Your task to perform on an android device: stop showing notifications on the lock screen Image 0: 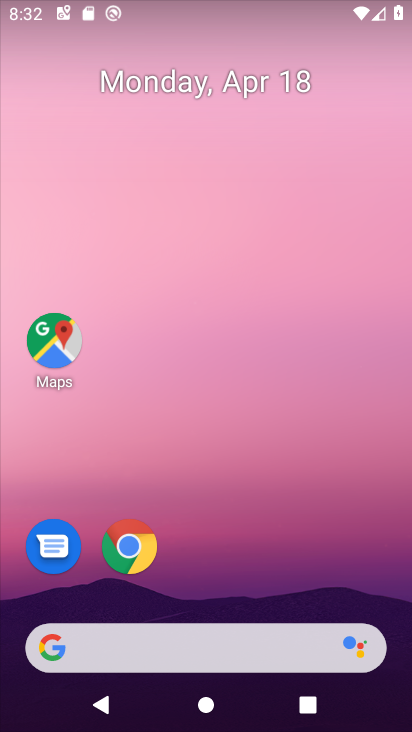
Step 0: drag from (378, 610) to (278, 16)
Your task to perform on an android device: stop showing notifications on the lock screen Image 1: 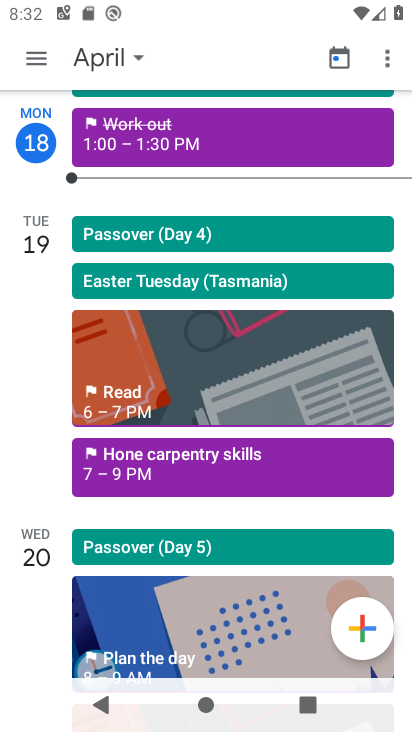
Step 1: press home button
Your task to perform on an android device: stop showing notifications on the lock screen Image 2: 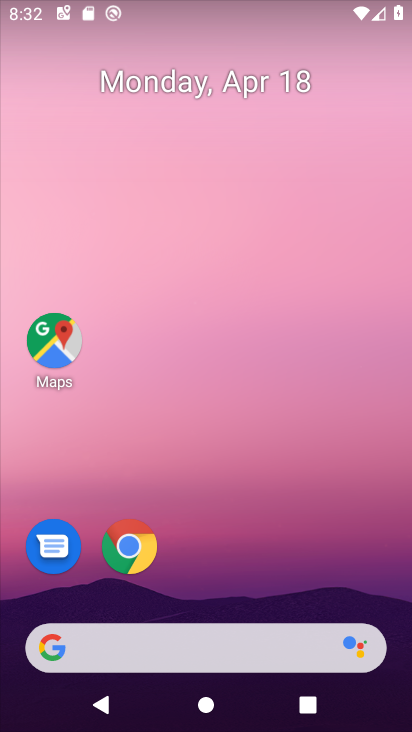
Step 2: drag from (366, 598) to (220, 162)
Your task to perform on an android device: stop showing notifications on the lock screen Image 3: 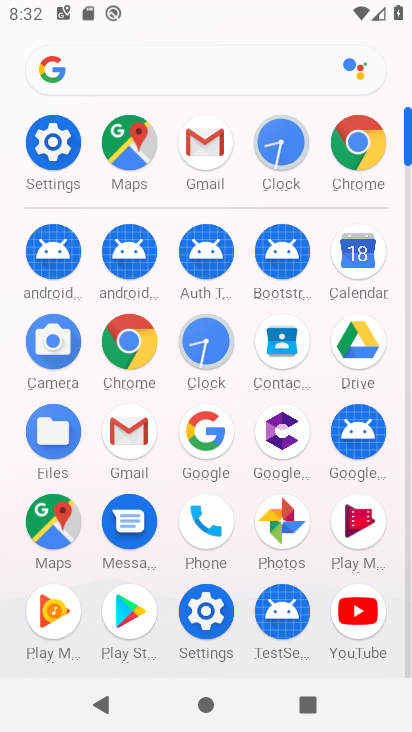
Step 3: click (71, 181)
Your task to perform on an android device: stop showing notifications on the lock screen Image 4: 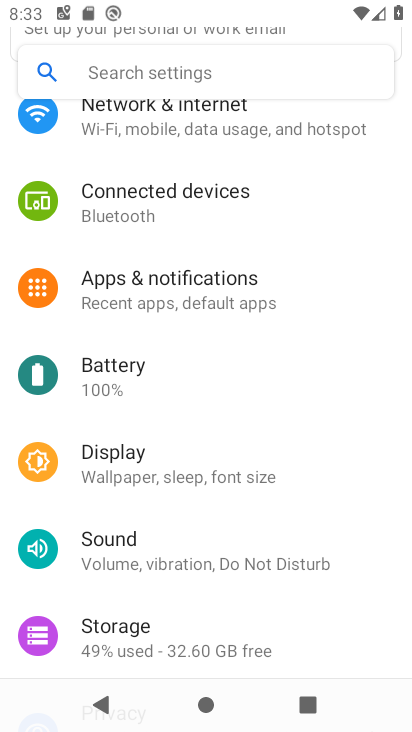
Step 4: drag from (270, 618) to (249, 554)
Your task to perform on an android device: stop showing notifications on the lock screen Image 5: 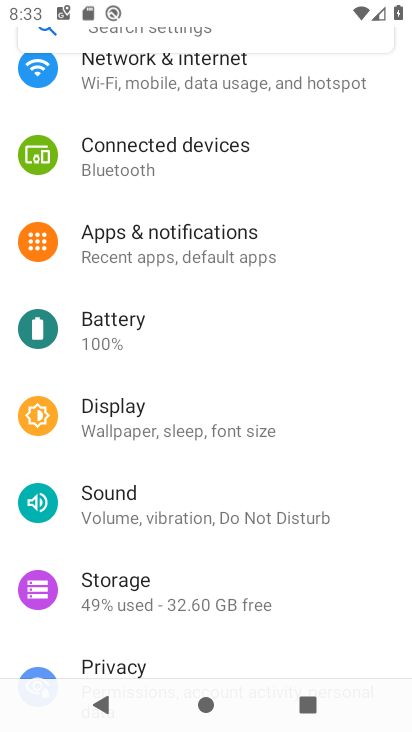
Step 5: click (200, 242)
Your task to perform on an android device: stop showing notifications on the lock screen Image 6: 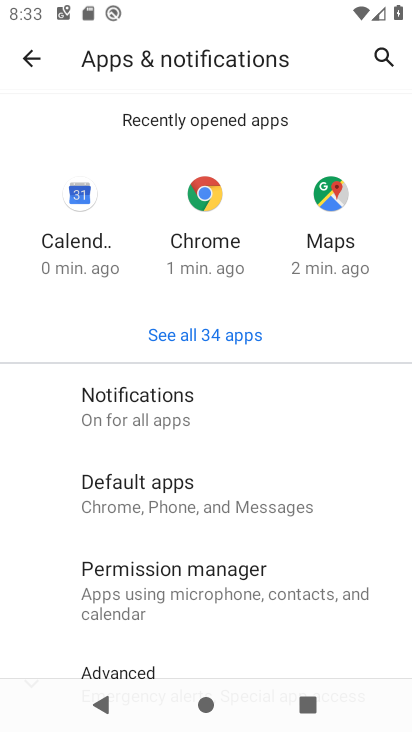
Step 6: click (249, 430)
Your task to perform on an android device: stop showing notifications on the lock screen Image 7: 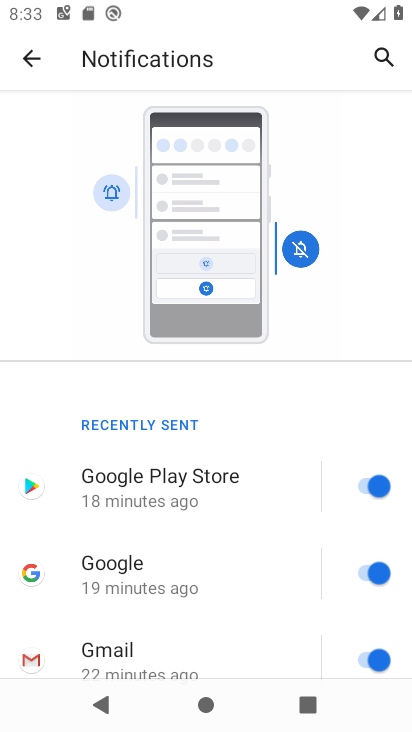
Step 7: drag from (268, 631) to (222, 212)
Your task to perform on an android device: stop showing notifications on the lock screen Image 8: 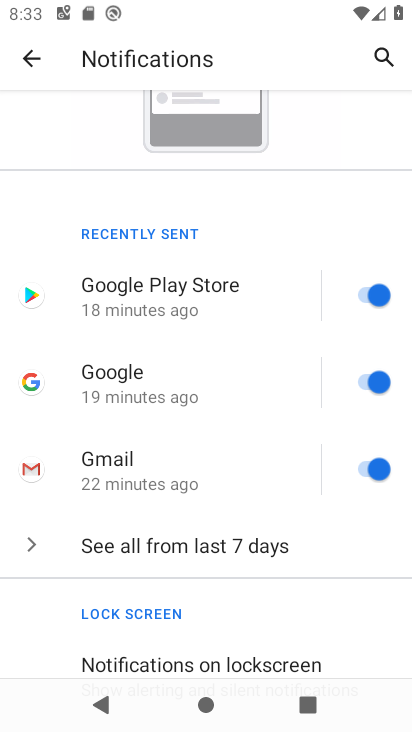
Step 8: drag from (295, 567) to (212, 309)
Your task to perform on an android device: stop showing notifications on the lock screen Image 9: 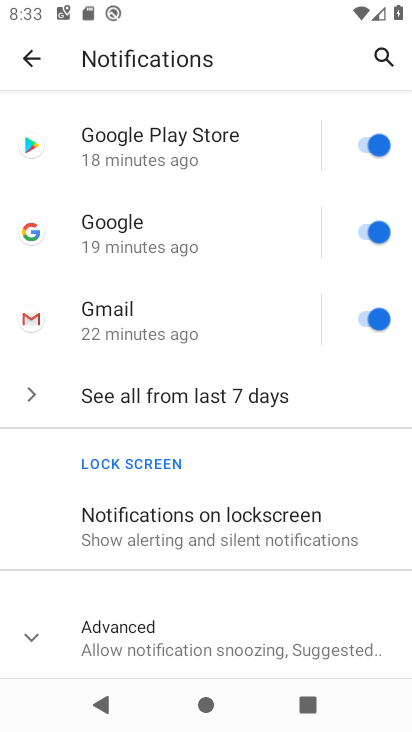
Step 9: click (260, 529)
Your task to perform on an android device: stop showing notifications on the lock screen Image 10: 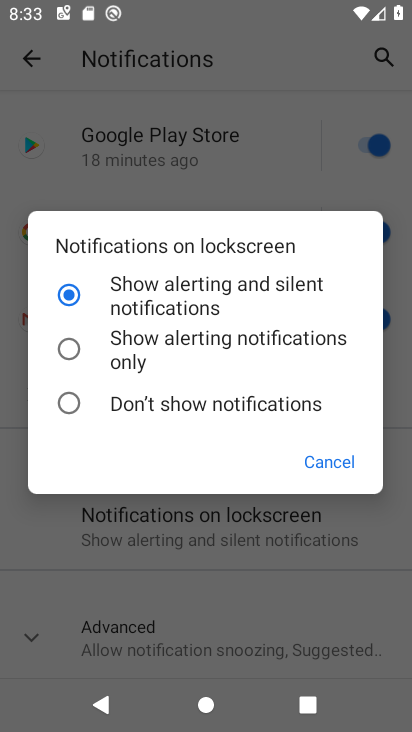
Step 10: click (222, 423)
Your task to perform on an android device: stop showing notifications on the lock screen Image 11: 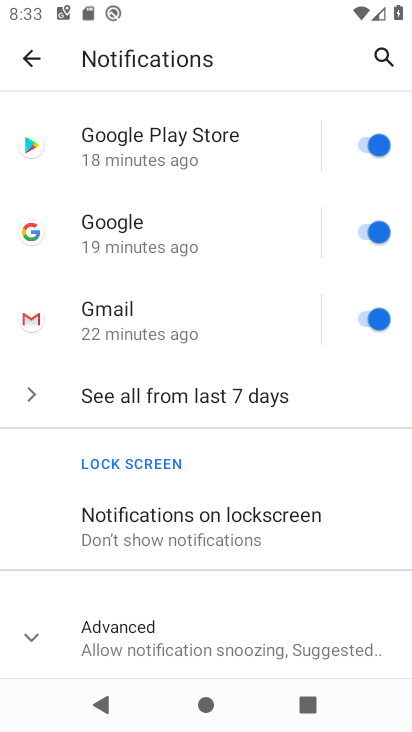
Step 11: task complete